Your task to perform on an android device: Open Youtube and go to "Your channel" Image 0: 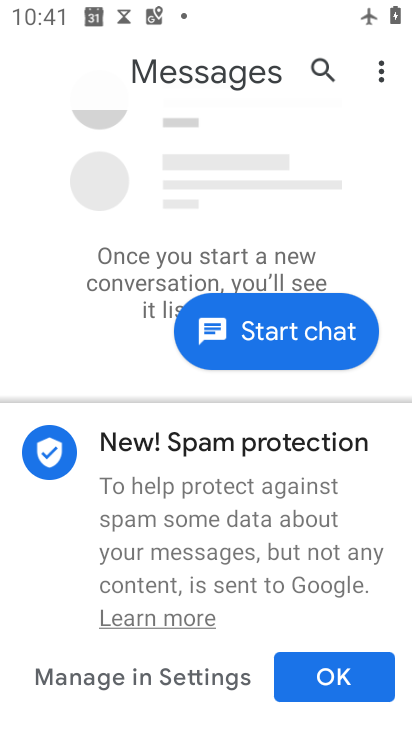
Step 0: press home button
Your task to perform on an android device: Open Youtube and go to "Your channel" Image 1: 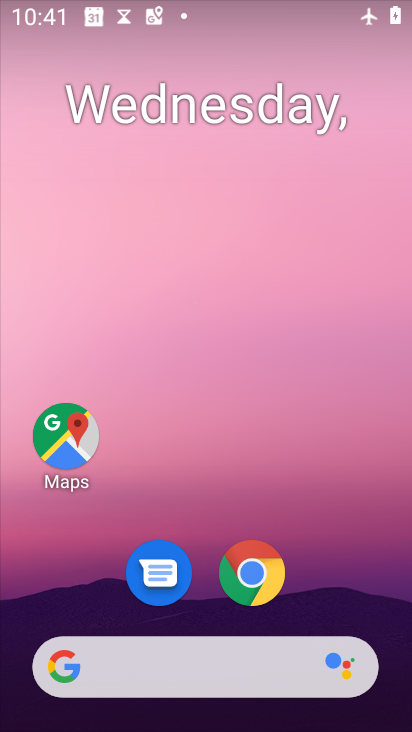
Step 1: drag from (329, 587) to (301, 210)
Your task to perform on an android device: Open Youtube and go to "Your channel" Image 2: 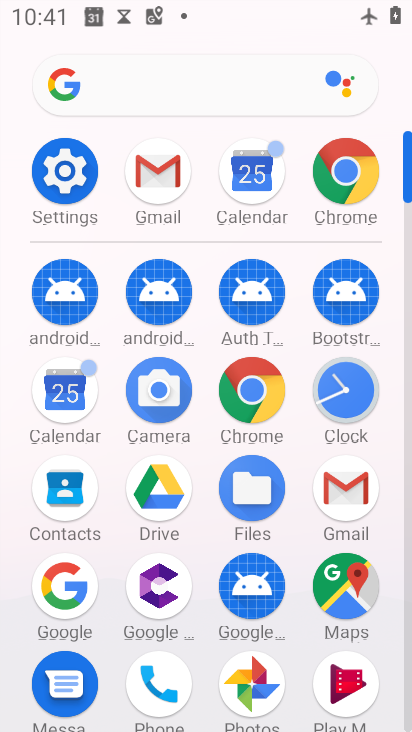
Step 2: drag from (303, 647) to (306, 197)
Your task to perform on an android device: Open Youtube and go to "Your channel" Image 3: 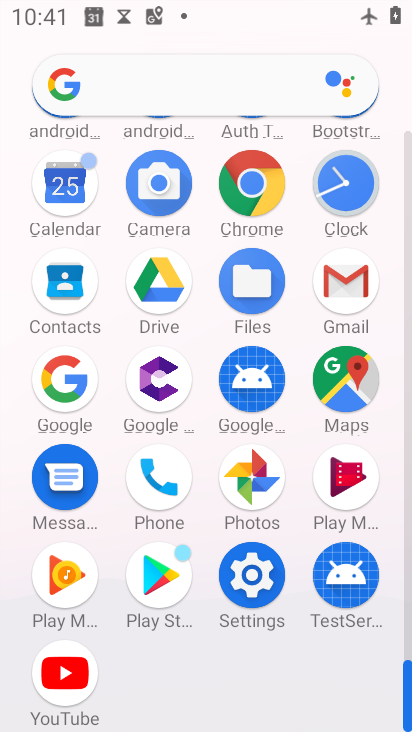
Step 3: click (67, 665)
Your task to perform on an android device: Open Youtube and go to "Your channel" Image 4: 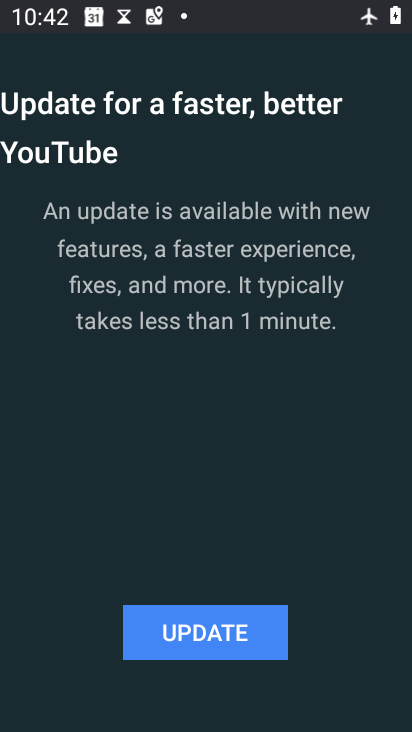
Step 4: task complete